Your task to perform on an android device: clear all cookies in the chrome app Image 0: 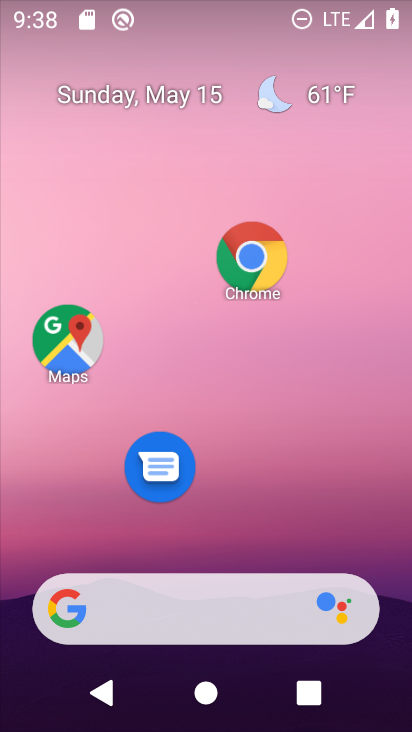
Step 0: click (256, 253)
Your task to perform on an android device: clear all cookies in the chrome app Image 1: 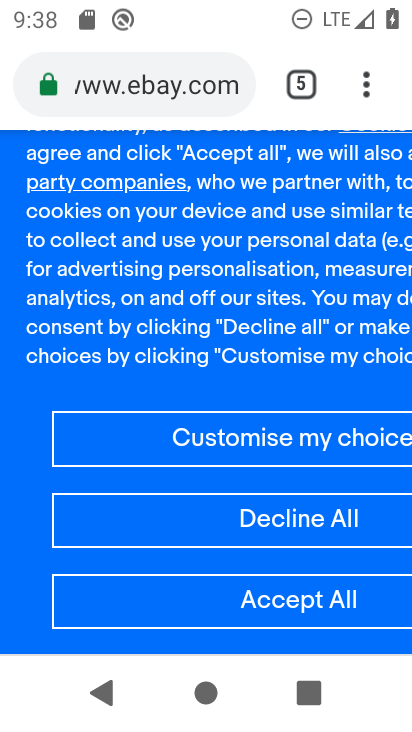
Step 1: click (376, 80)
Your task to perform on an android device: clear all cookies in the chrome app Image 2: 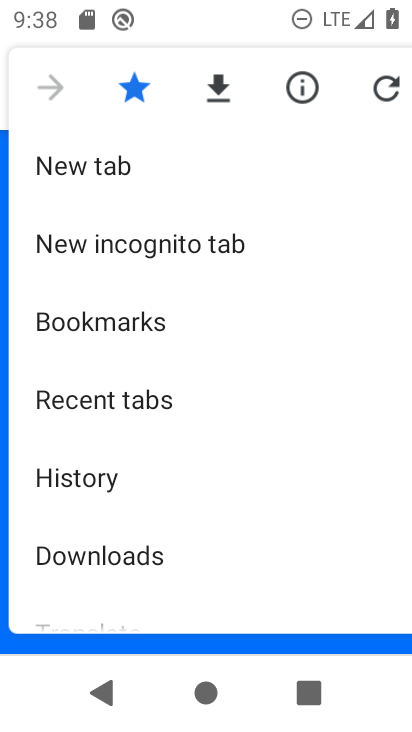
Step 2: click (67, 462)
Your task to perform on an android device: clear all cookies in the chrome app Image 3: 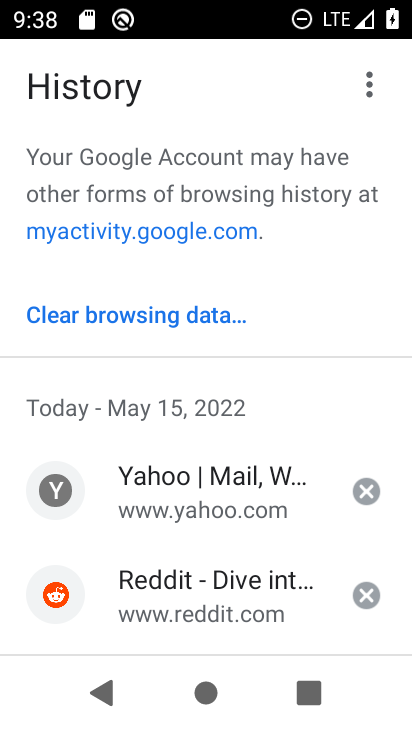
Step 3: click (144, 319)
Your task to perform on an android device: clear all cookies in the chrome app Image 4: 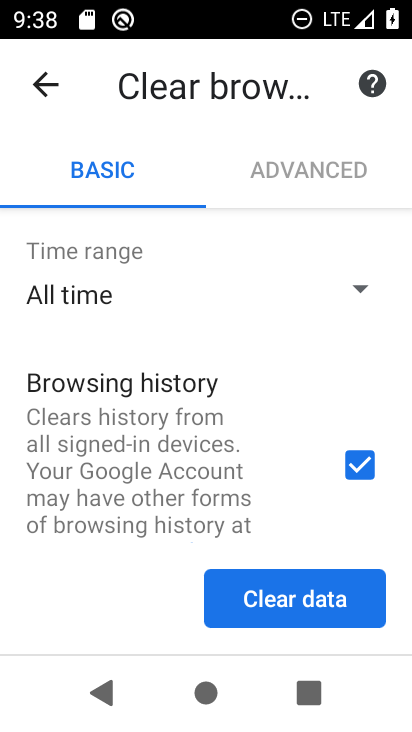
Step 4: click (349, 474)
Your task to perform on an android device: clear all cookies in the chrome app Image 5: 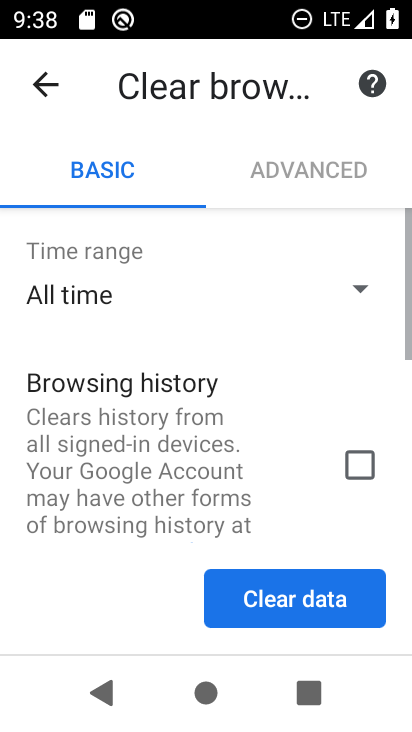
Step 5: drag from (142, 483) to (228, 178)
Your task to perform on an android device: clear all cookies in the chrome app Image 6: 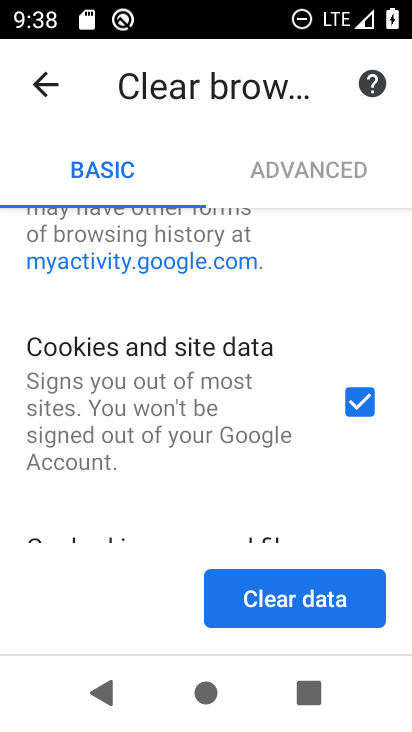
Step 6: click (288, 570)
Your task to perform on an android device: clear all cookies in the chrome app Image 7: 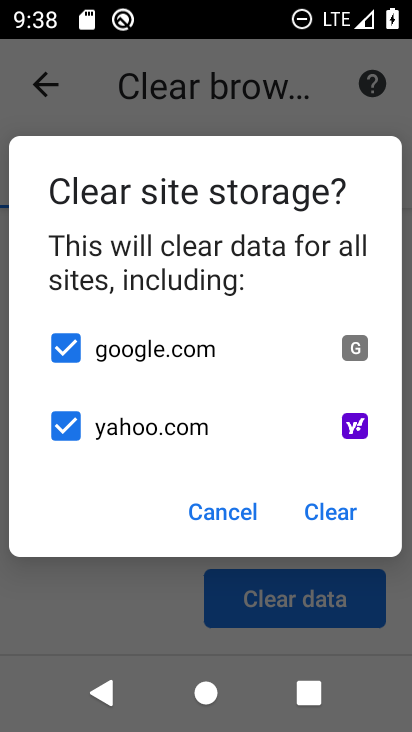
Step 7: click (275, 601)
Your task to perform on an android device: clear all cookies in the chrome app Image 8: 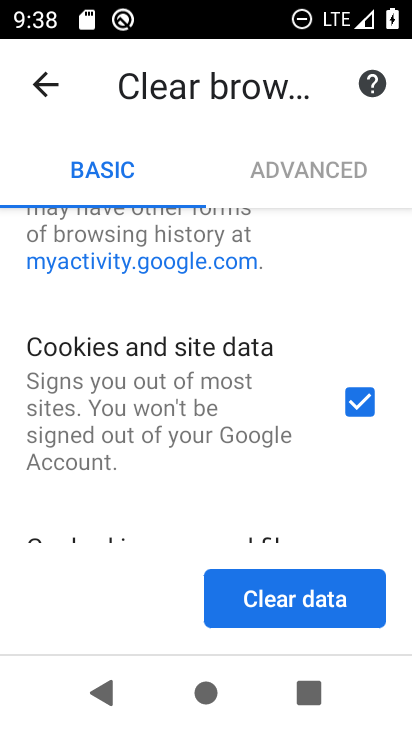
Step 8: click (332, 516)
Your task to perform on an android device: clear all cookies in the chrome app Image 9: 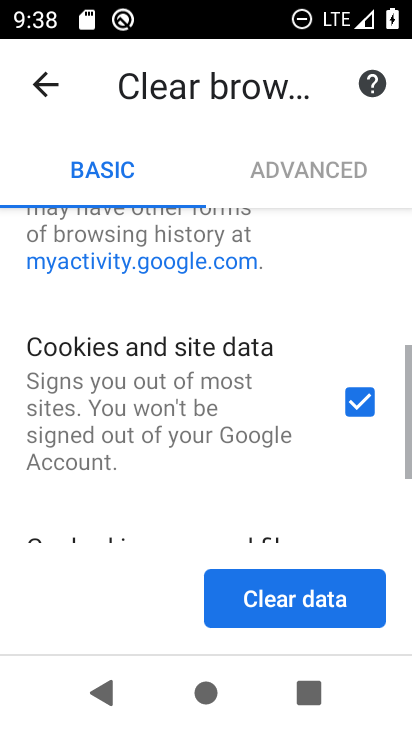
Step 9: click (284, 598)
Your task to perform on an android device: clear all cookies in the chrome app Image 10: 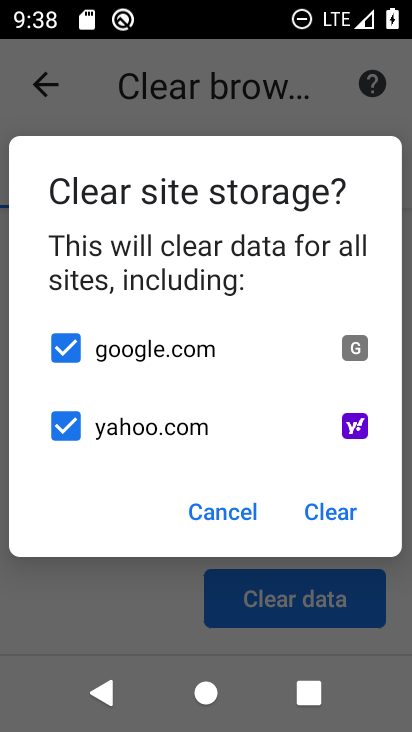
Step 10: click (330, 525)
Your task to perform on an android device: clear all cookies in the chrome app Image 11: 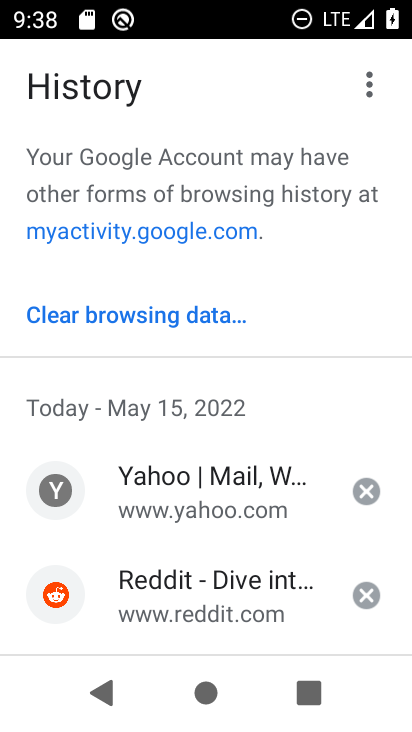
Step 11: task complete